Your task to perform on an android device: Open sound settings Image 0: 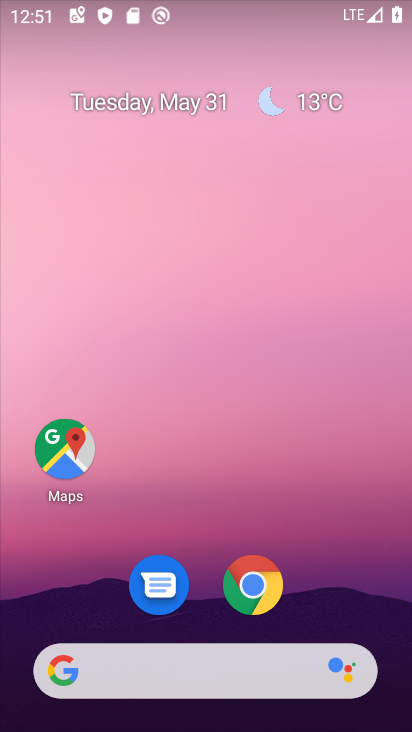
Step 0: drag from (230, 488) to (217, 35)
Your task to perform on an android device: Open sound settings Image 1: 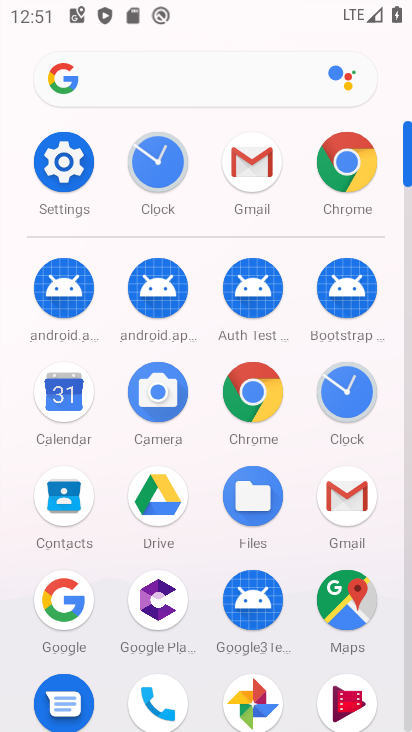
Step 1: click (66, 162)
Your task to perform on an android device: Open sound settings Image 2: 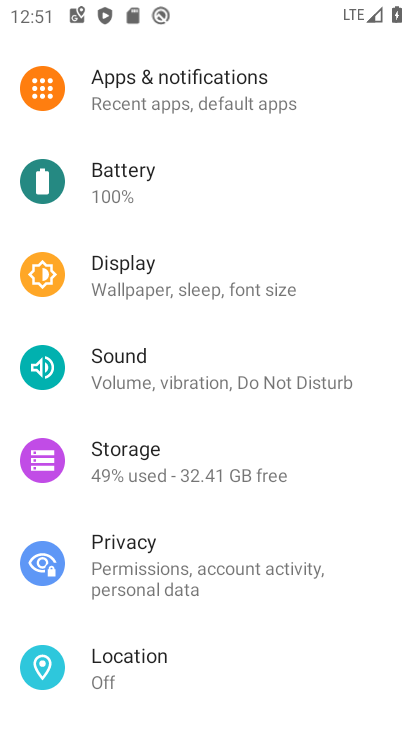
Step 2: click (183, 358)
Your task to perform on an android device: Open sound settings Image 3: 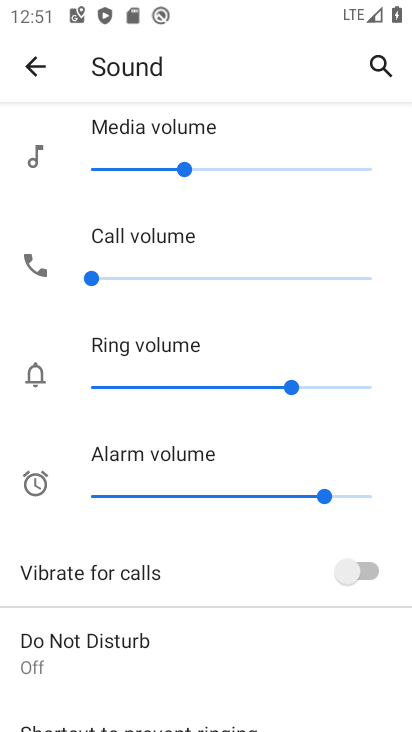
Step 3: task complete